Your task to perform on an android device: change the clock display to show seconds Image 0: 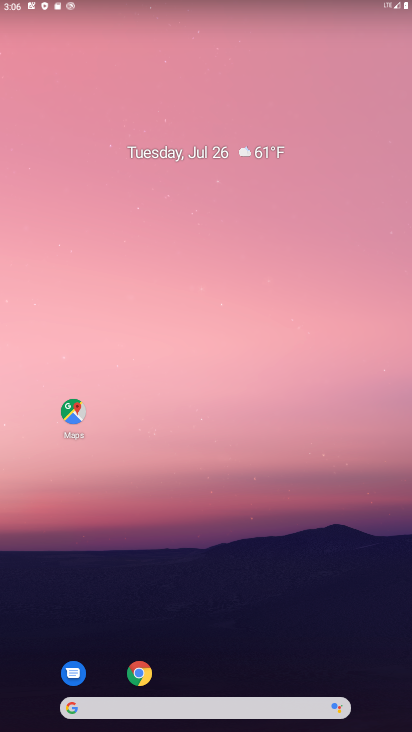
Step 0: drag from (265, 600) to (265, 253)
Your task to perform on an android device: change the clock display to show seconds Image 1: 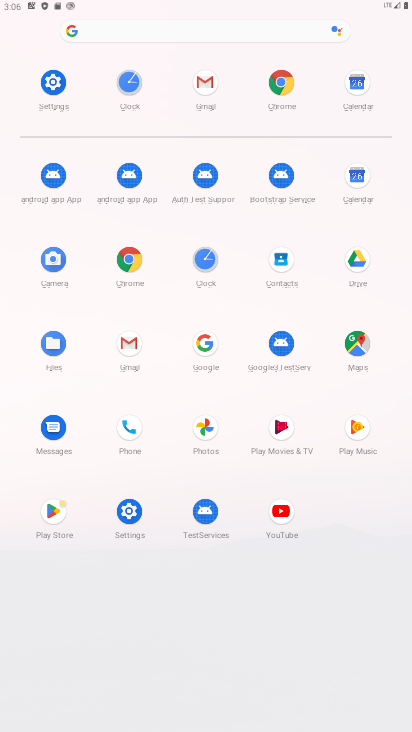
Step 1: click (206, 255)
Your task to perform on an android device: change the clock display to show seconds Image 2: 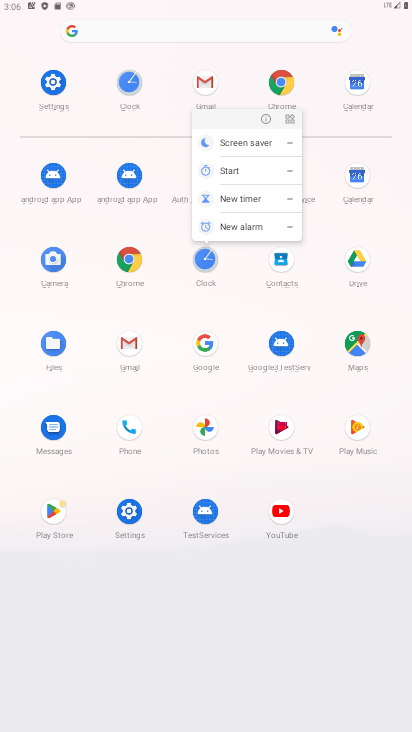
Step 2: click (268, 109)
Your task to perform on an android device: change the clock display to show seconds Image 3: 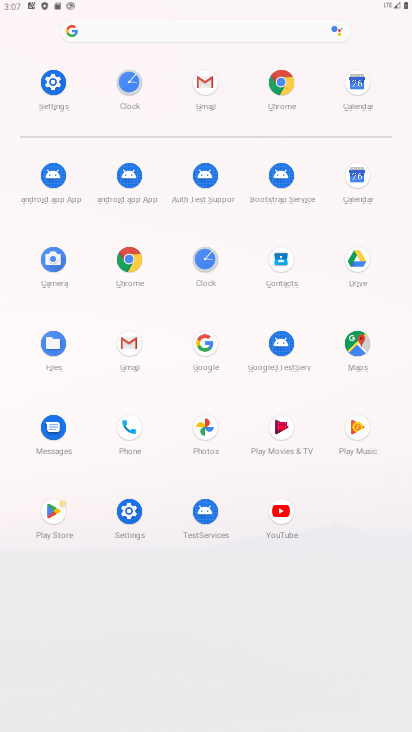
Step 3: click (200, 255)
Your task to perform on an android device: change the clock display to show seconds Image 4: 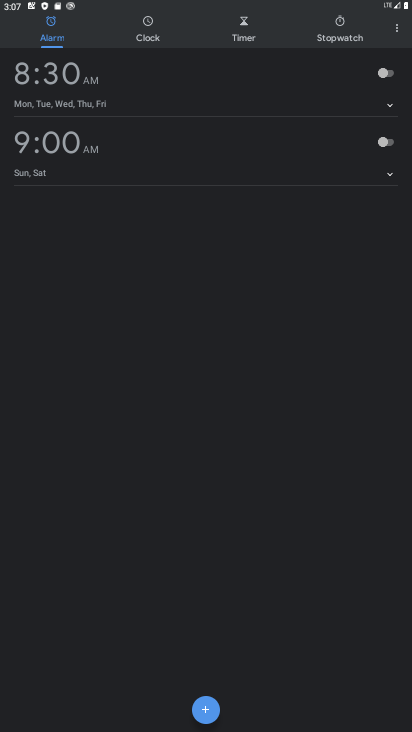
Step 4: drag from (393, 33) to (356, 72)
Your task to perform on an android device: change the clock display to show seconds Image 5: 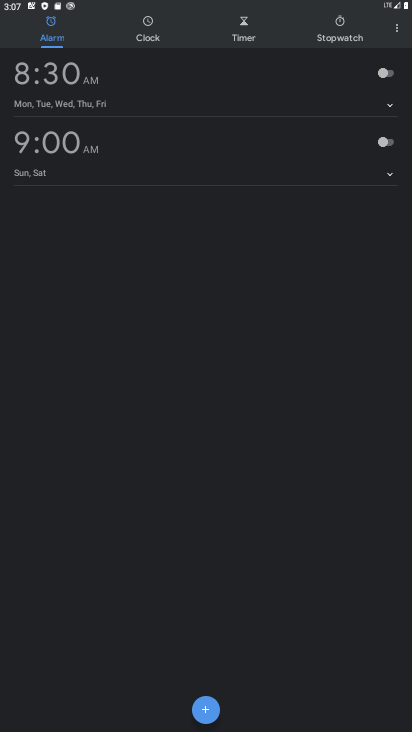
Step 5: click (362, 52)
Your task to perform on an android device: change the clock display to show seconds Image 6: 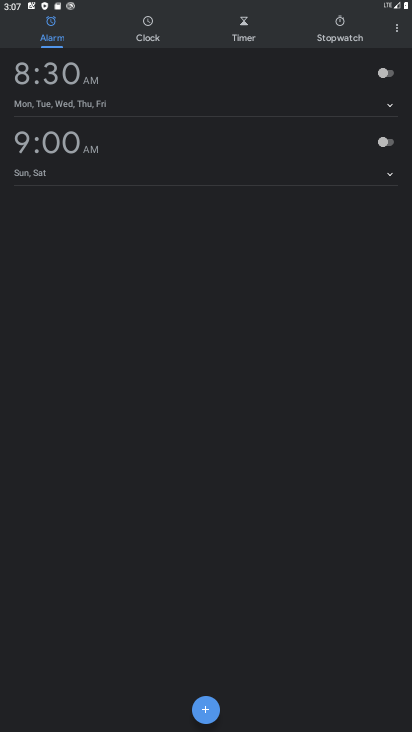
Step 6: click (362, 52)
Your task to perform on an android device: change the clock display to show seconds Image 7: 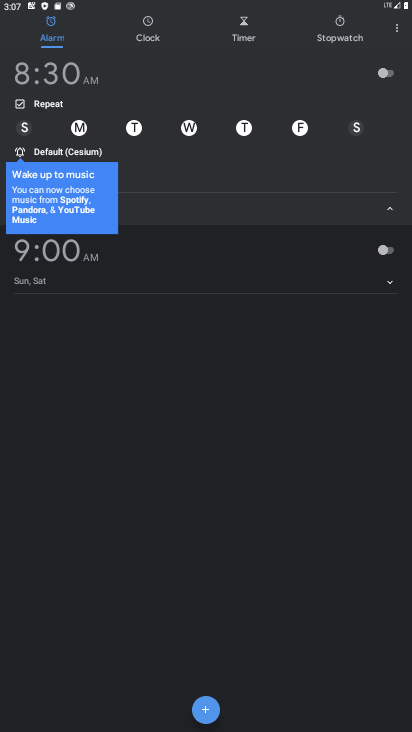
Step 7: click (398, 21)
Your task to perform on an android device: change the clock display to show seconds Image 8: 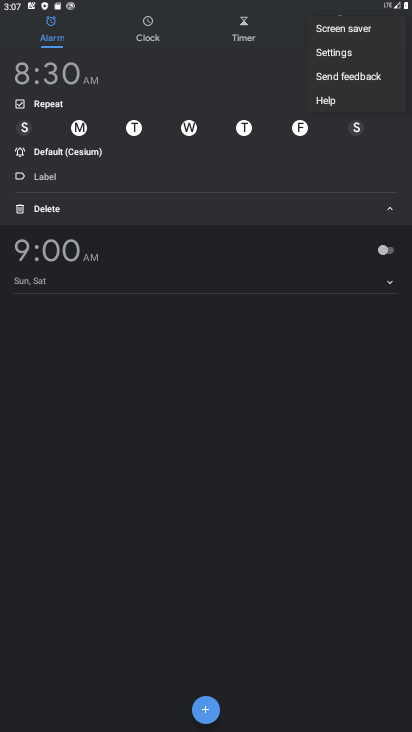
Step 8: click (363, 44)
Your task to perform on an android device: change the clock display to show seconds Image 9: 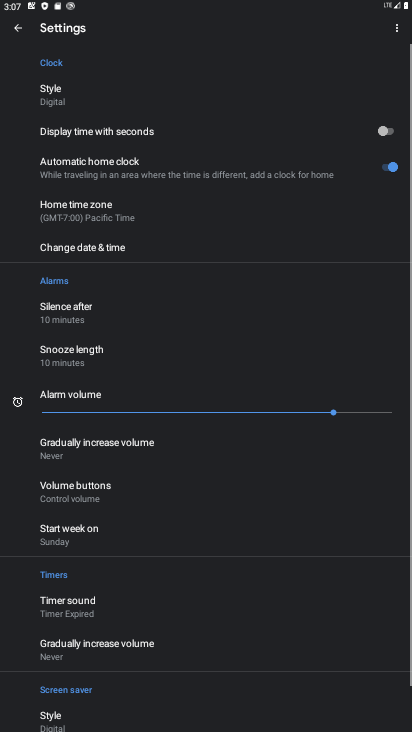
Step 9: drag from (216, 524) to (289, 98)
Your task to perform on an android device: change the clock display to show seconds Image 10: 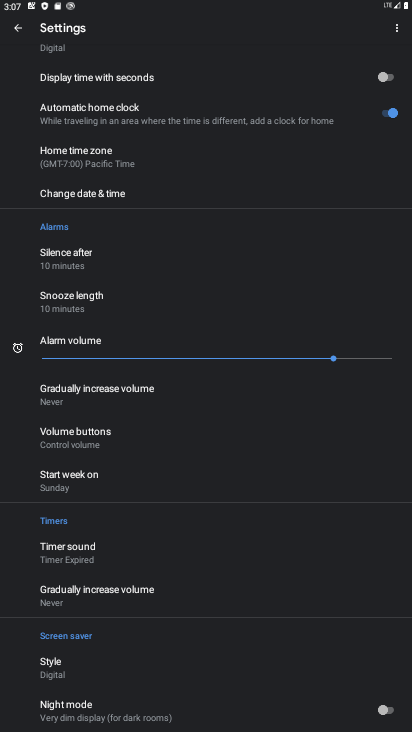
Step 10: click (387, 70)
Your task to perform on an android device: change the clock display to show seconds Image 11: 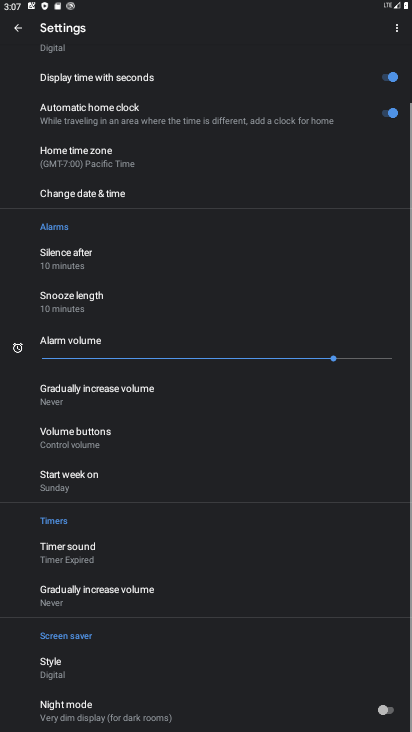
Step 11: task complete